Your task to perform on an android device: Clear the shopping cart on ebay. Search for "razer kraken" on ebay, select the first entry, add it to the cart, then select checkout. Image 0: 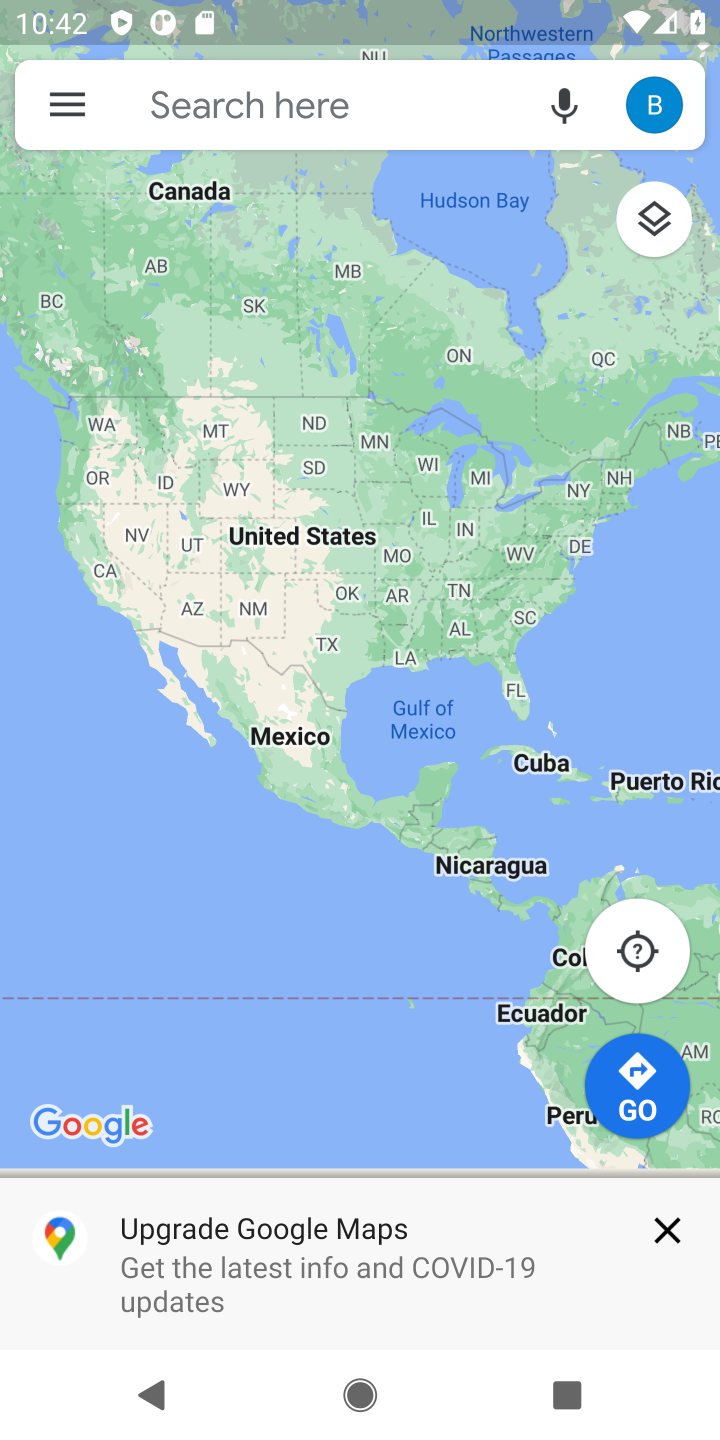
Step 0: press home button
Your task to perform on an android device: Clear the shopping cart on ebay. Search for "razer kraken" on ebay, select the first entry, add it to the cart, then select checkout. Image 1: 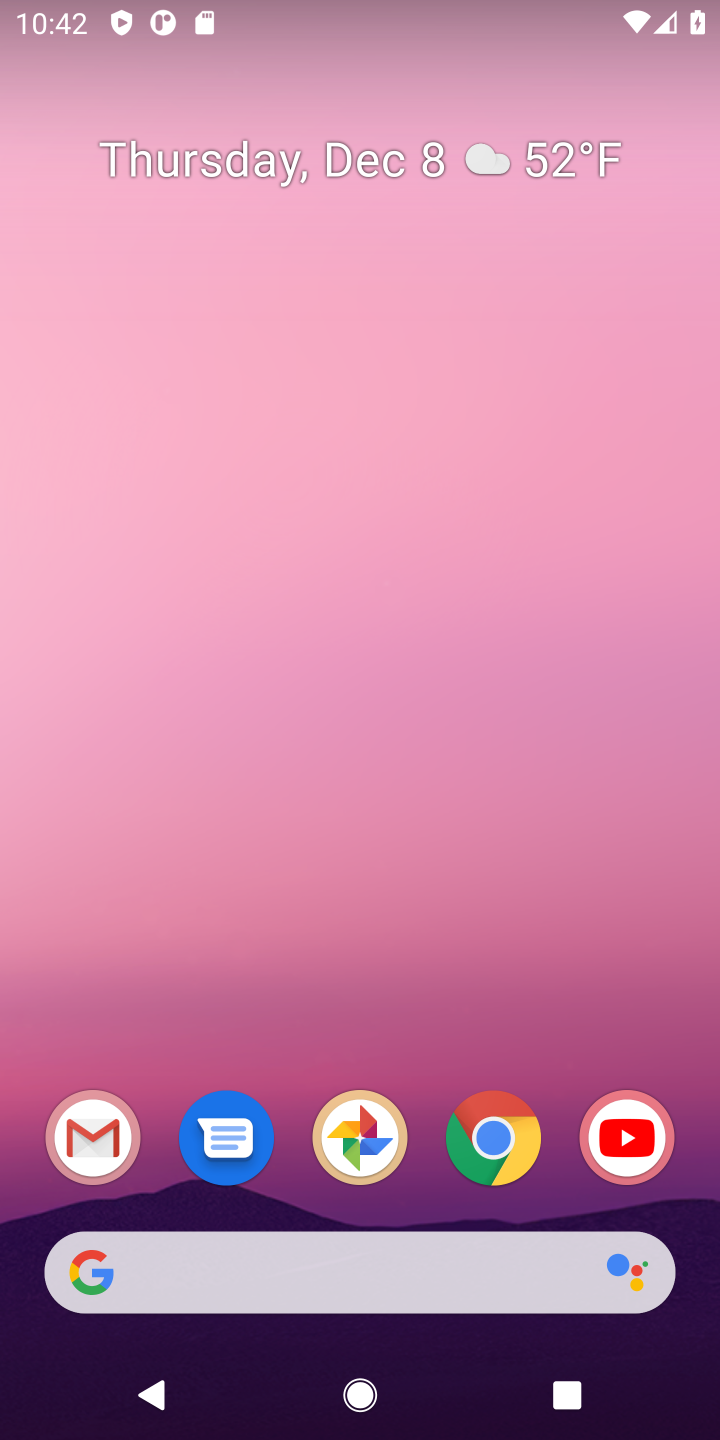
Step 1: click (517, 1138)
Your task to perform on an android device: Clear the shopping cart on ebay. Search for "razer kraken" on ebay, select the first entry, add it to the cart, then select checkout. Image 2: 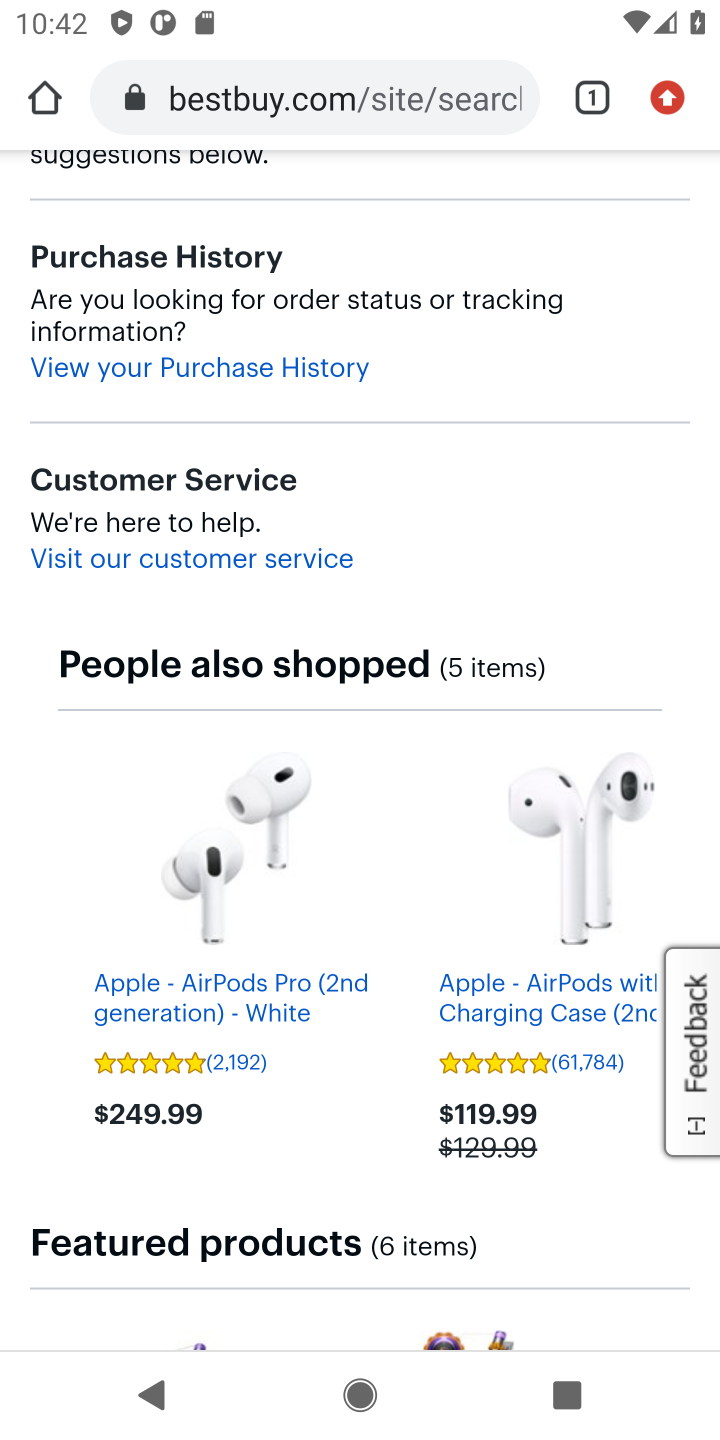
Step 2: click (297, 99)
Your task to perform on an android device: Clear the shopping cart on ebay. Search for "razer kraken" on ebay, select the first entry, add it to the cart, then select checkout. Image 3: 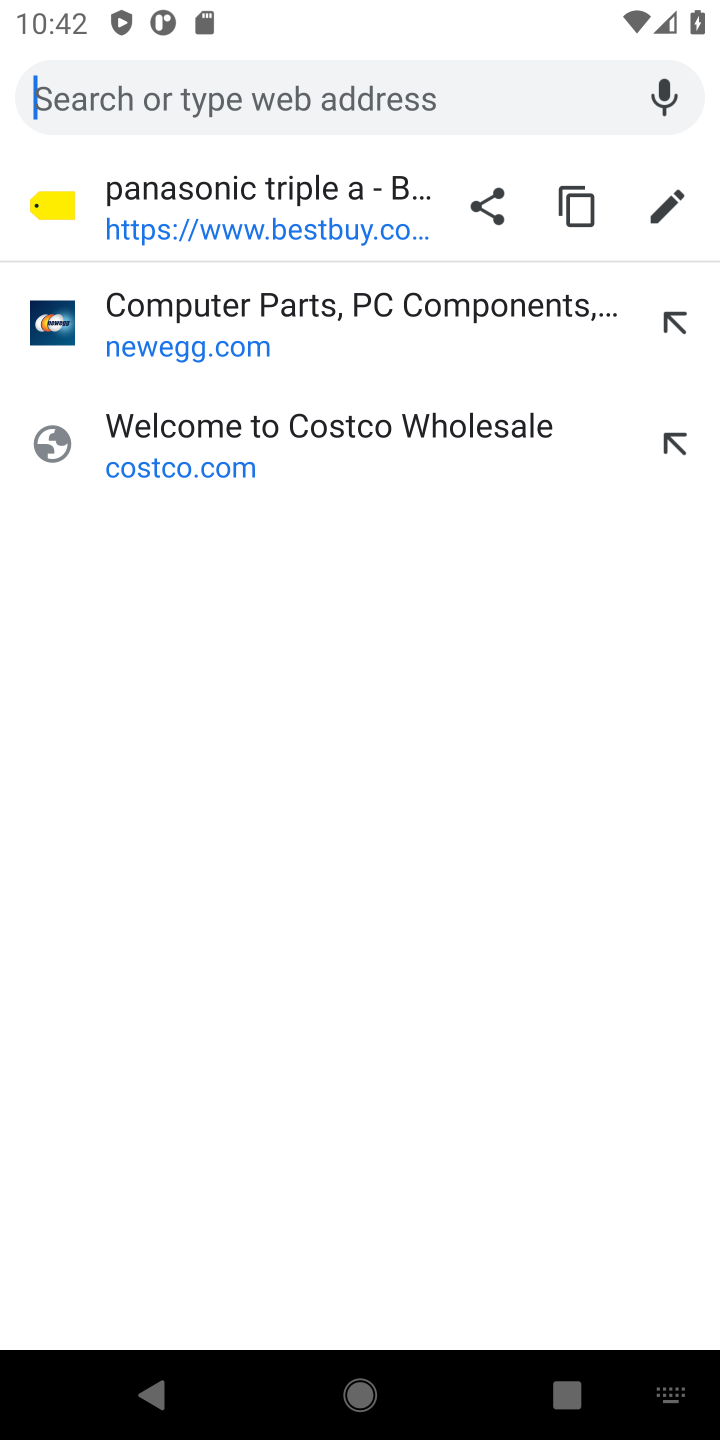
Step 3: type "ebay"
Your task to perform on an android device: Clear the shopping cart on ebay. Search for "razer kraken" on ebay, select the first entry, add it to the cart, then select checkout. Image 4: 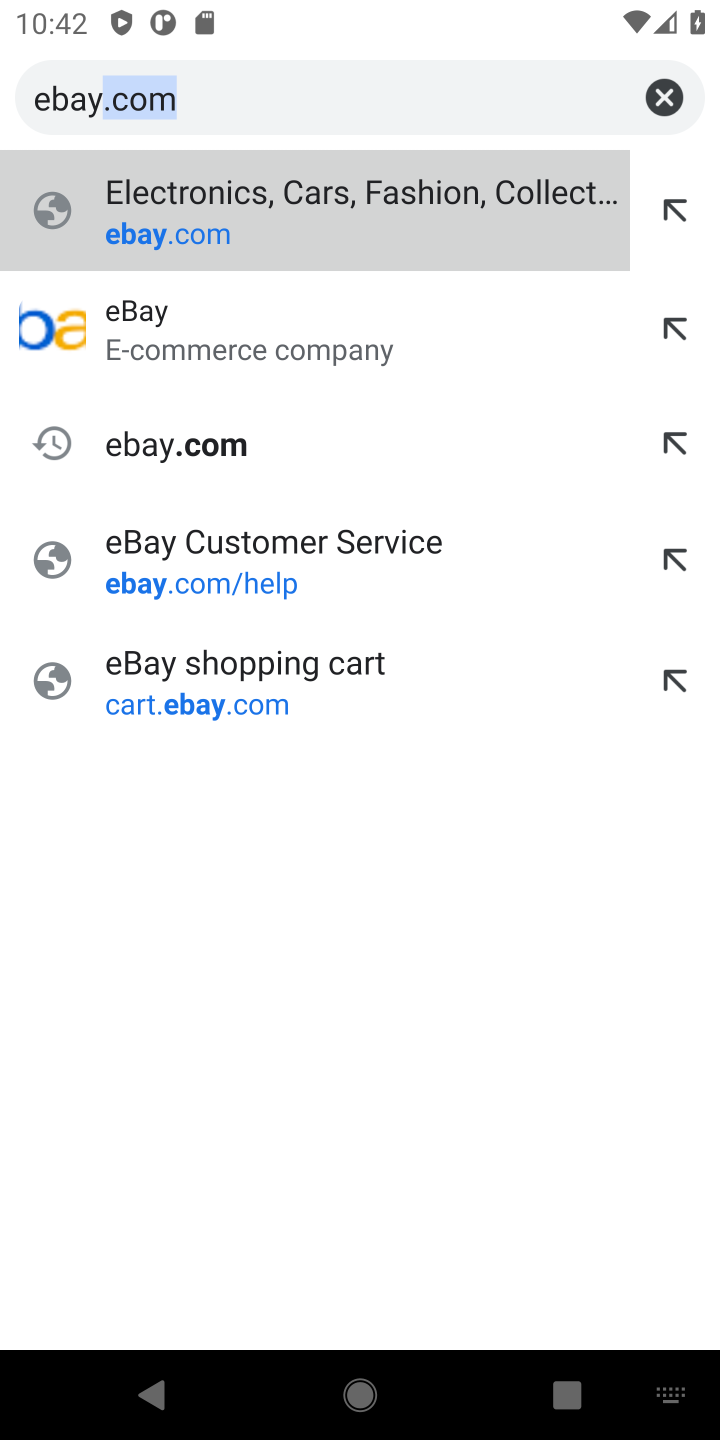
Step 4: press enter
Your task to perform on an android device: Clear the shopping cart on ebay. Search for "razer kraken" on ebay, select the first entry, add it to the cart, then select checkout. Image 5: 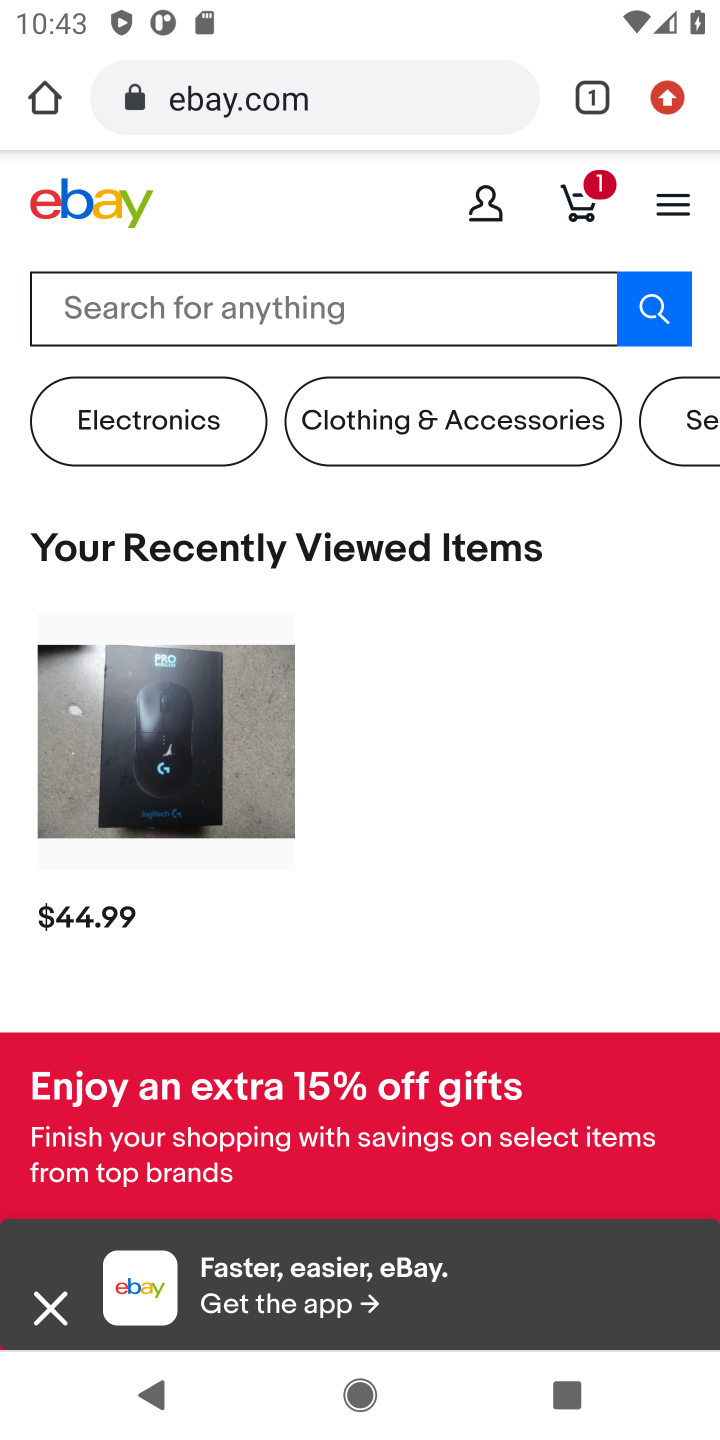
Step 5: click (573, 207)
Your task to perform on an android device: Clear the shopping cart on ebay. Search for "razer kraken" on ebay, select the first entry, add it to the cart, then select checkout. Image 6: 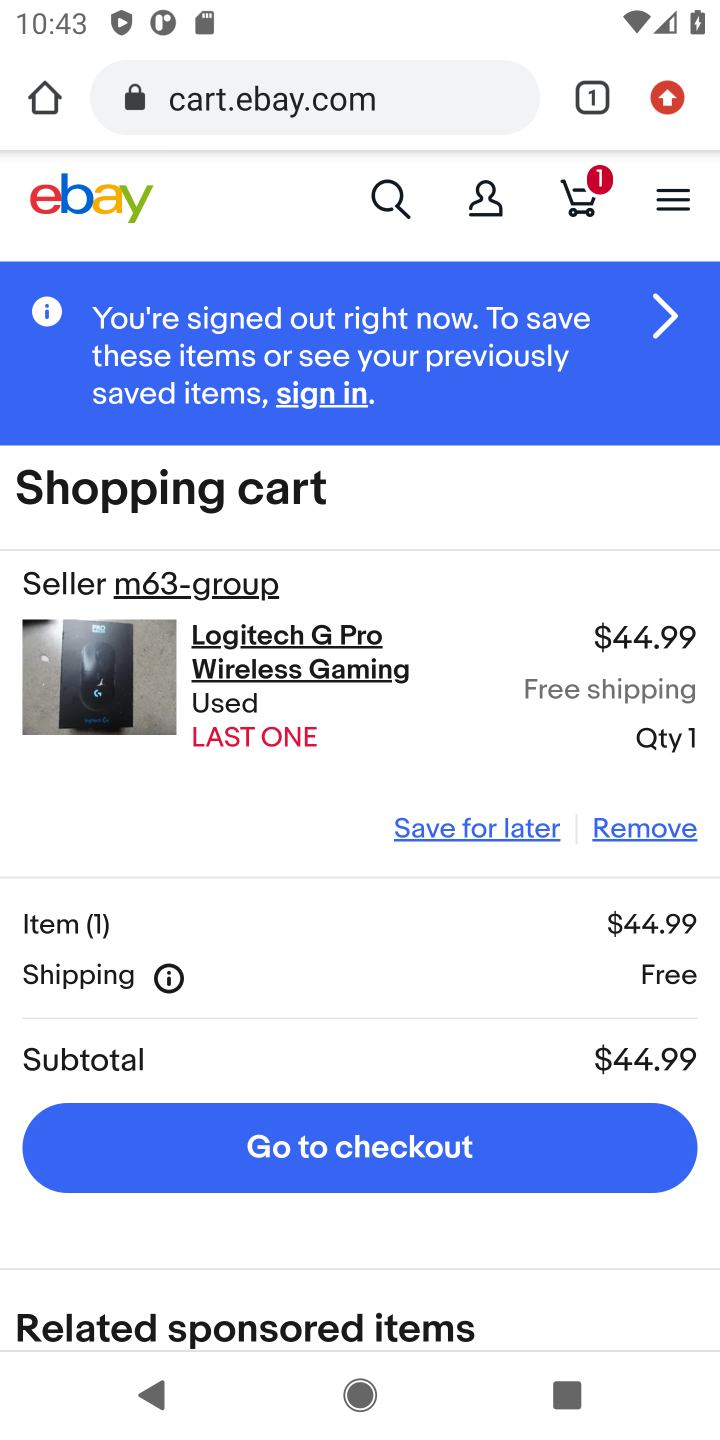
Step 6: click (640, 821)
Your task to perform on an android device: Clear the shopping cart on ebay. Search for "razer kraken" on ebay, select the first entry, add it to the cart, then select checkout. Image 7: 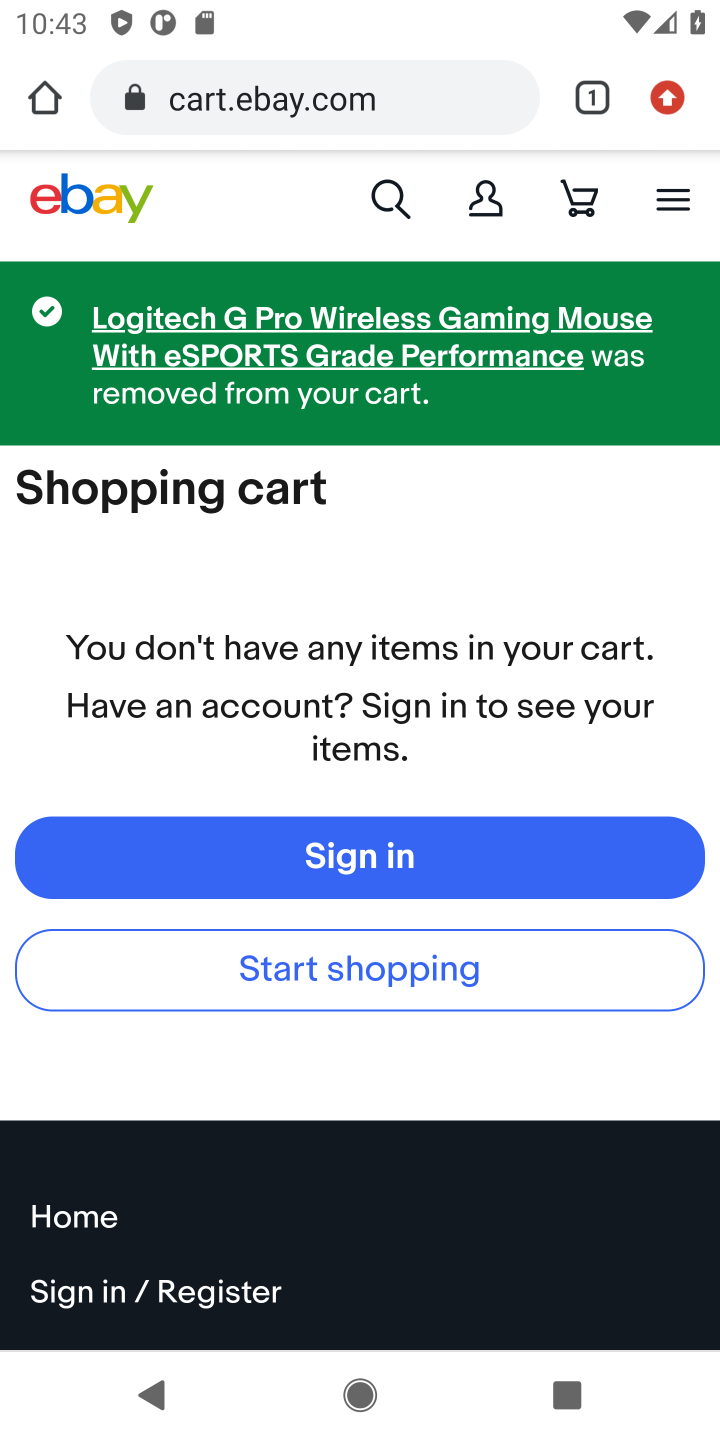
Step 7: click (381, 197)
Your task to perform on an android device: Clear the shopping cart on ebay. Search for "razer kraken" on ebay, select the first entry, add it to the cart, then select checkout. Image 8: 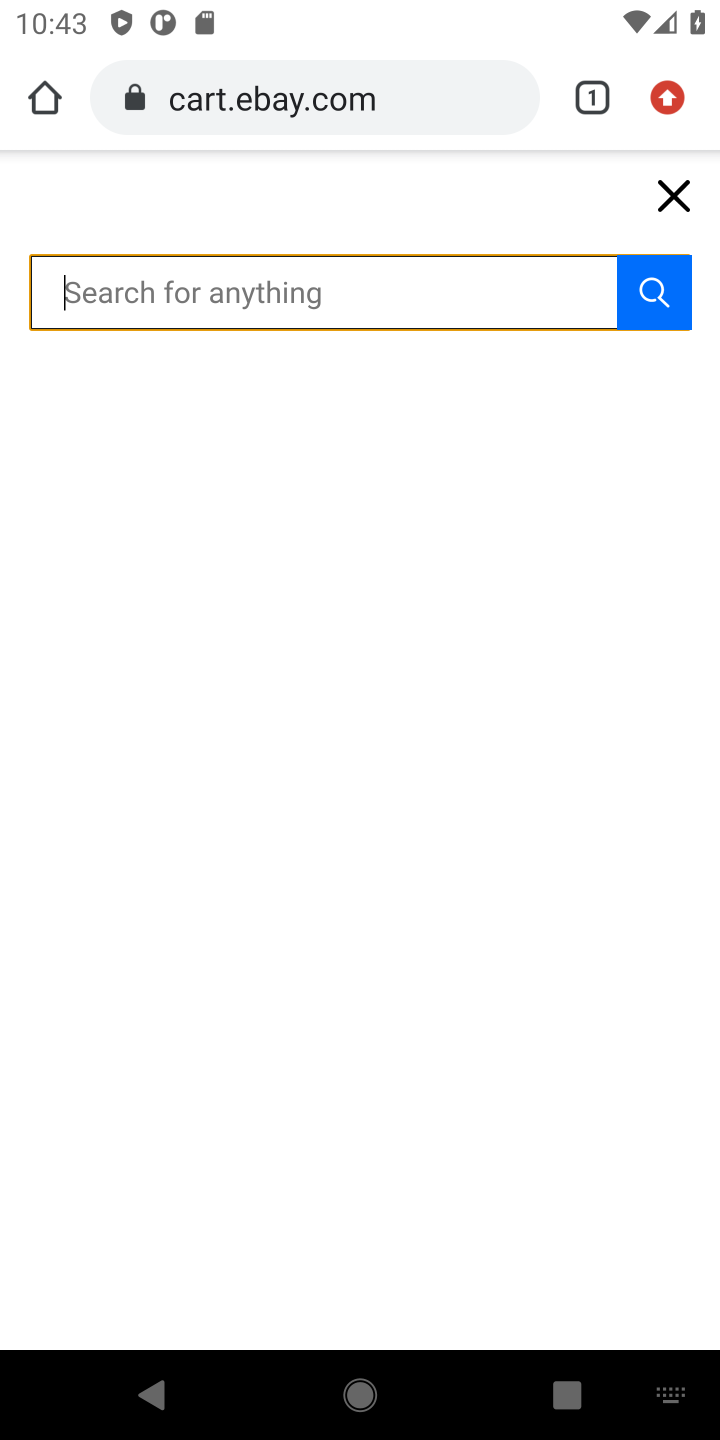
Step 8: type "razer kraken"
Your task to perform on an android device: Clear the shopping cart on ebay. Search for "razer kraken" on ebay, select the first entry, add it to the cart, then select checkout. Image 9: 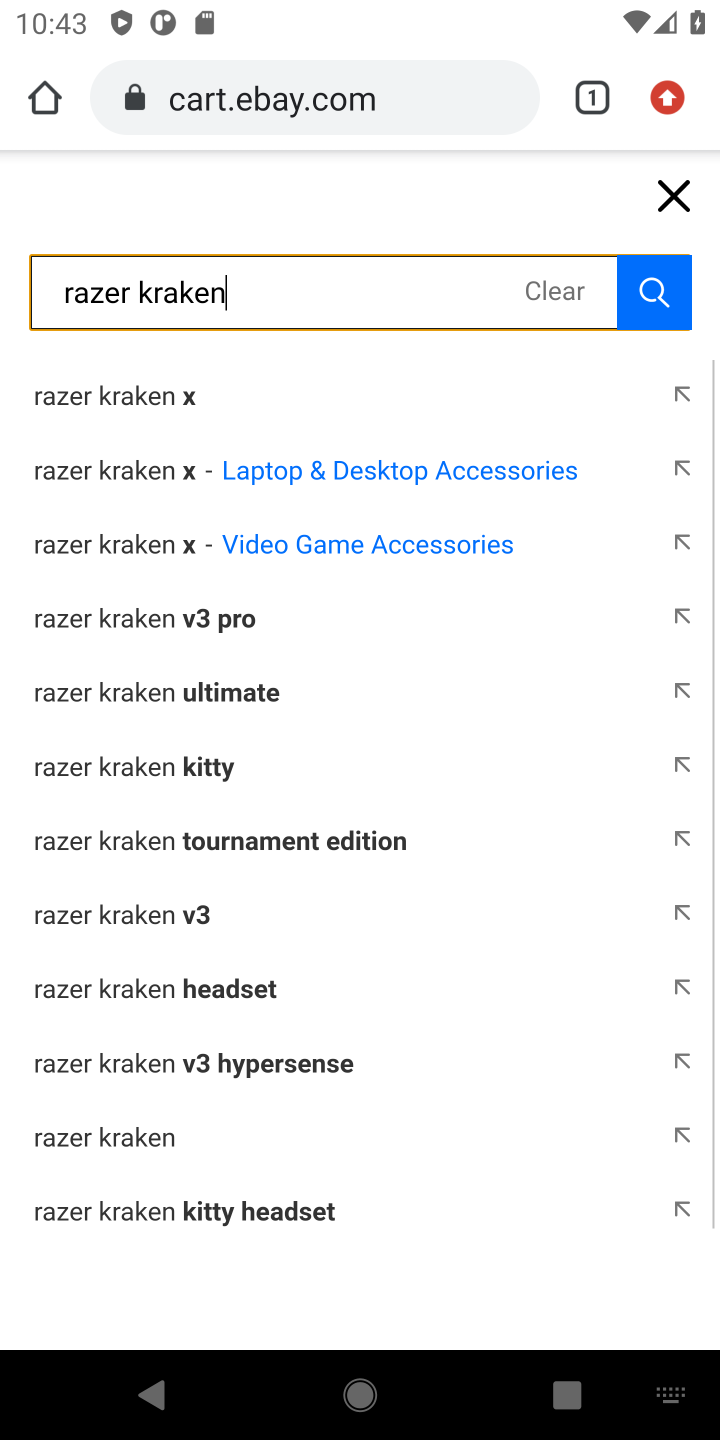
Step 9: press enter
Your task to perform on an android device: Clear the shopping cart on ebay. Search for "razer kraken" on ebay, select the first entry, add it to the cart, then select checkout. Image 10: 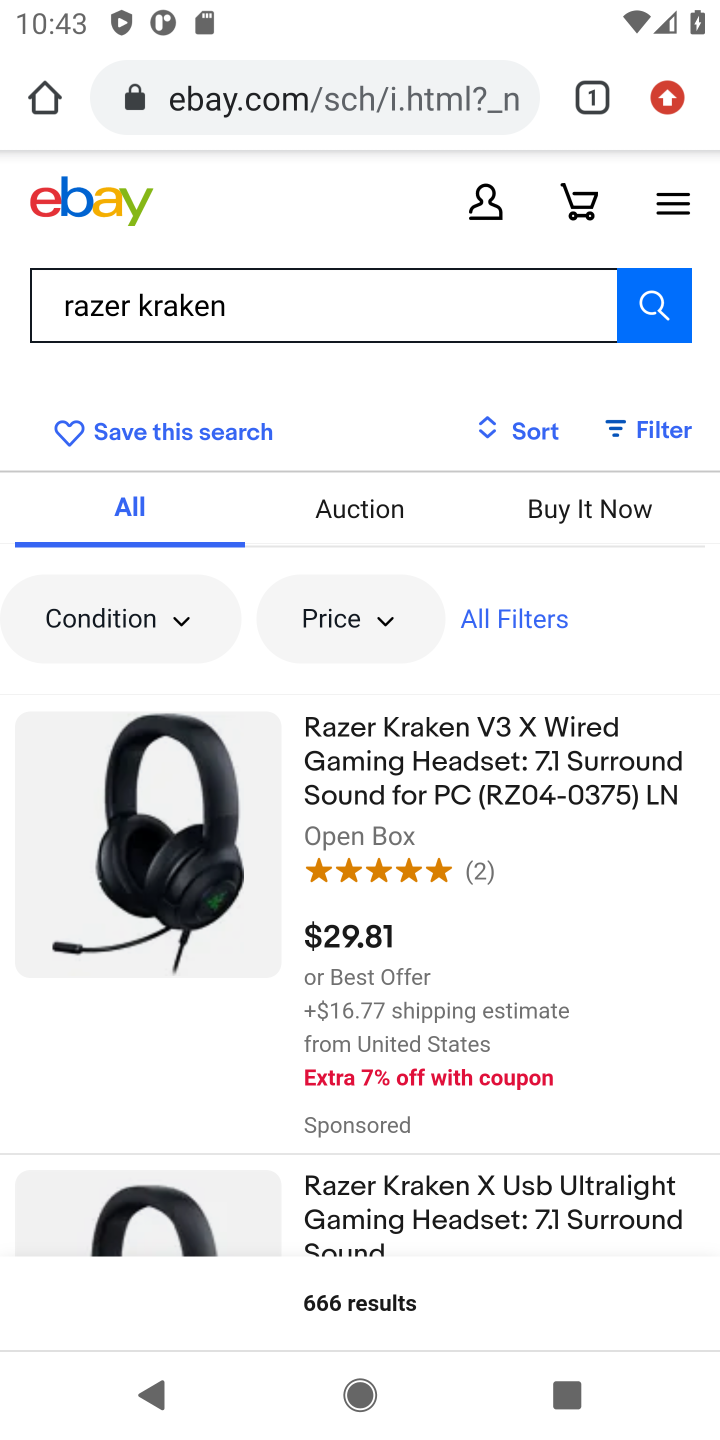
Step 10: click (156, 836)
Your task to perform on an android device: Clear the shopping cart on ebay. Search for "razer kraken" on ebay, select the first entry, add it to the cart, then select checkout. Image 11: 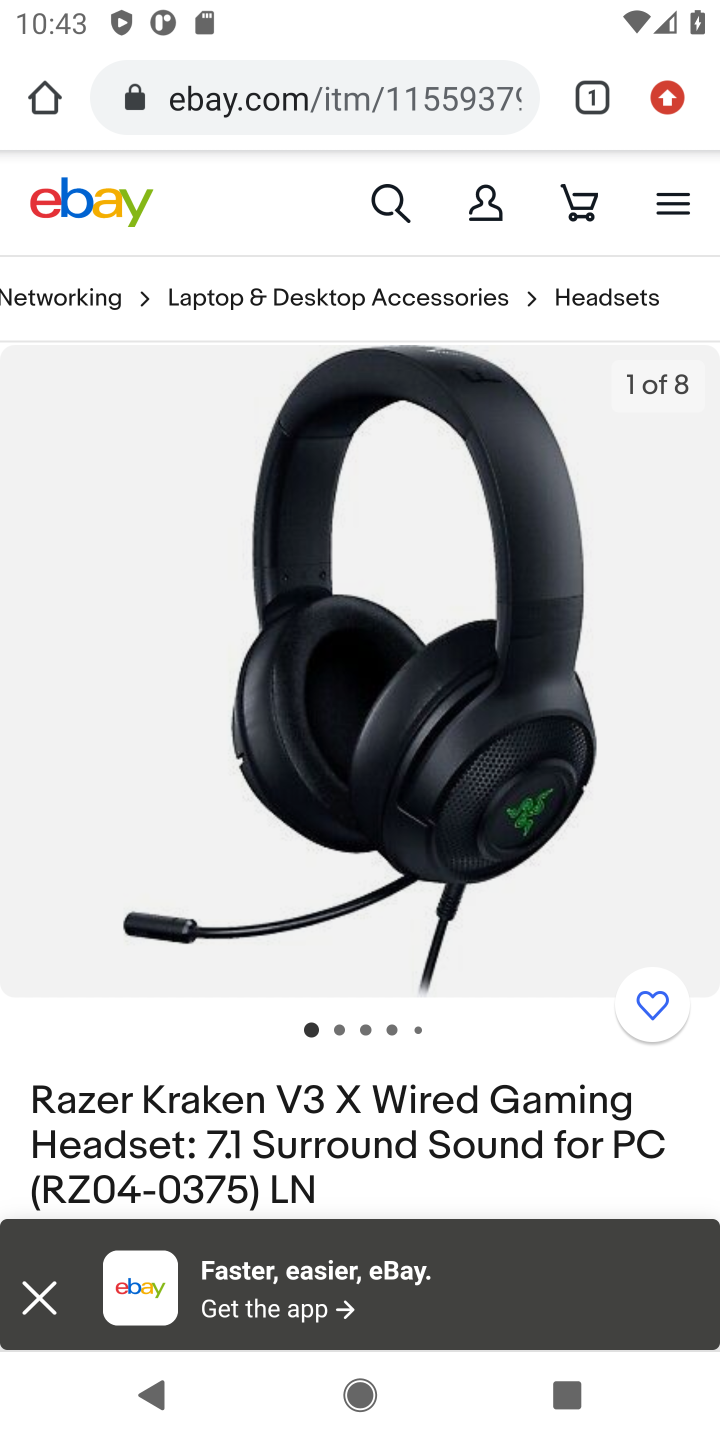
Step 11: drag from (553, 1187) to (526, 184)
Your task to perform on an android device: Clear the shopping cart on ebay. Search for "razer kraken" on ebay, select the first entry, add it to the cart, then select checkout. Image 12: 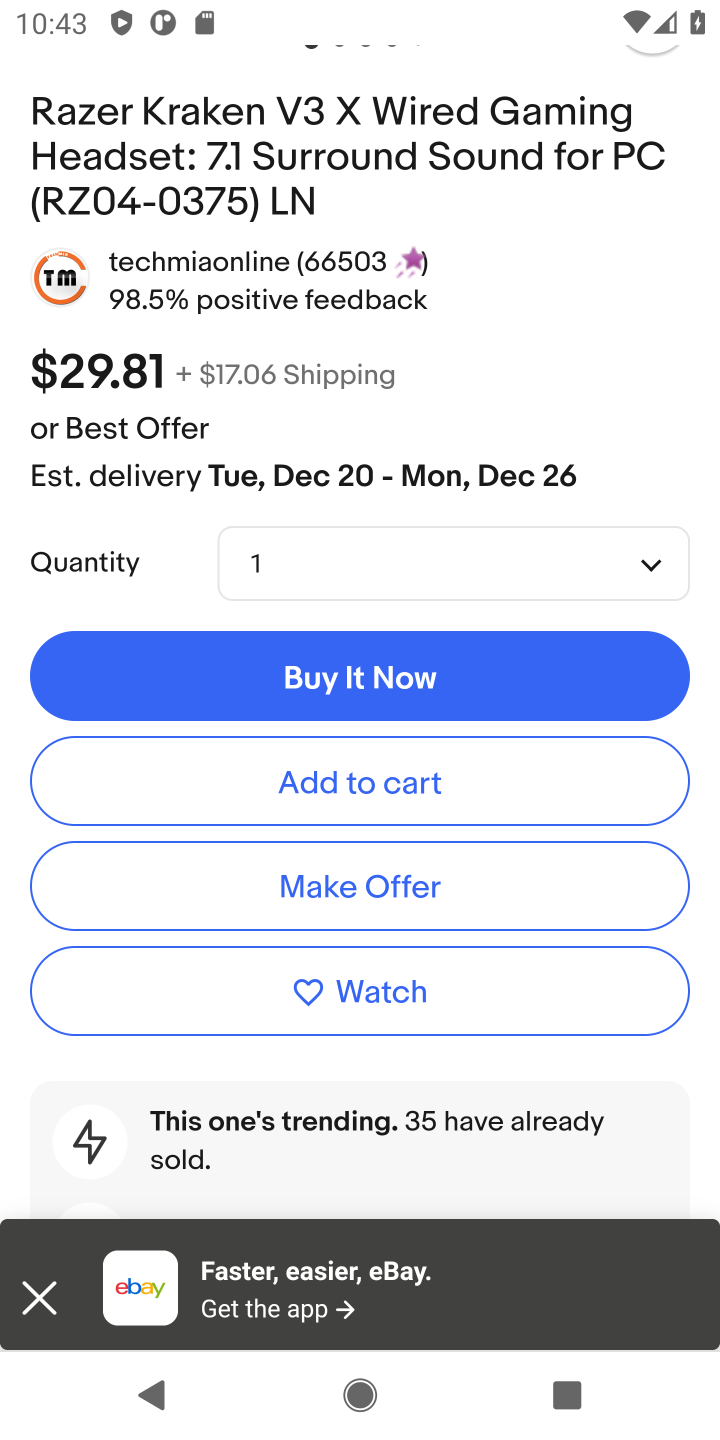
Step 12: click (345, 777)
Your task to perform on an android device: Clear the shopping cart on ebay. Search for "razer kraken" on ebay, select the first entry, add it to the cart, then select checkout. Image 13: 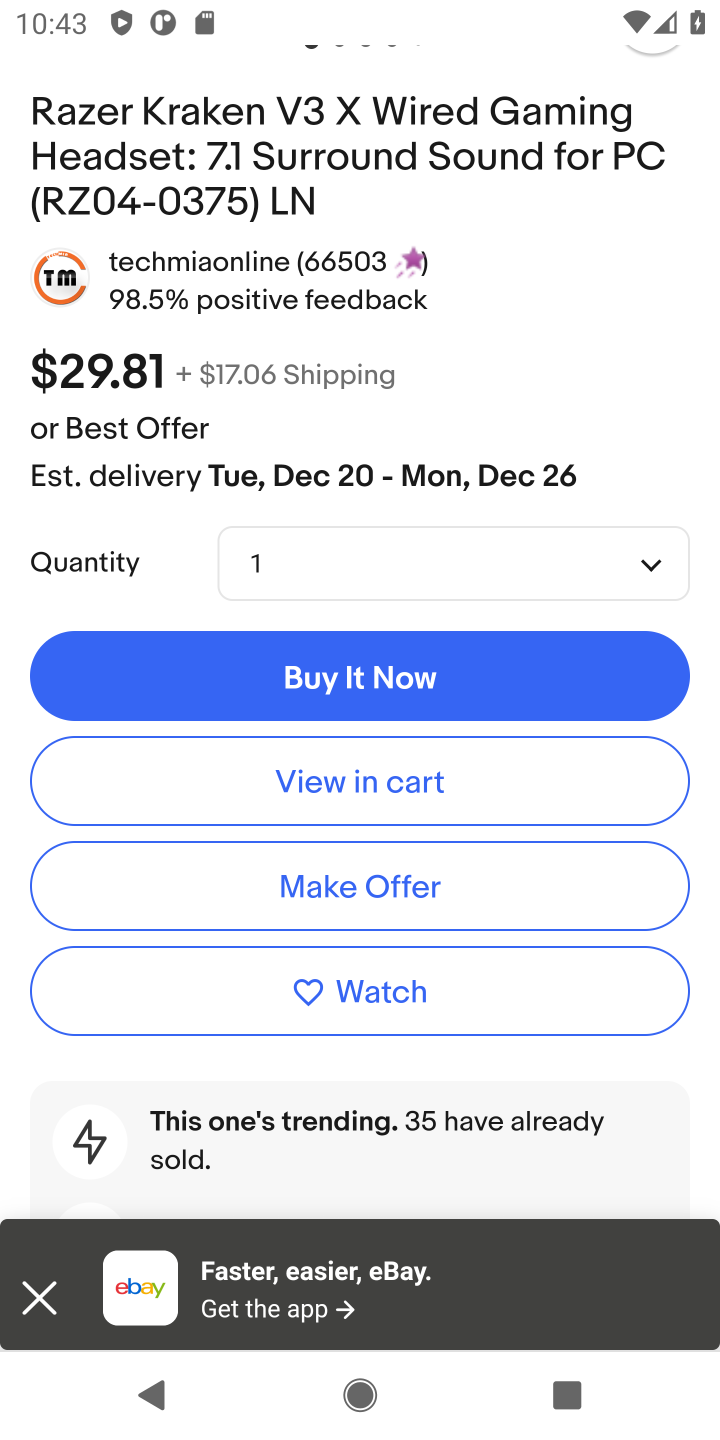
Step 13: click (400, 782)
Your task to perform on an android device: Clear the shopping cart on ebay. Search for "razer kraken" on ebay, select the first entry, add it to the cart, then select checkout. Image 14: 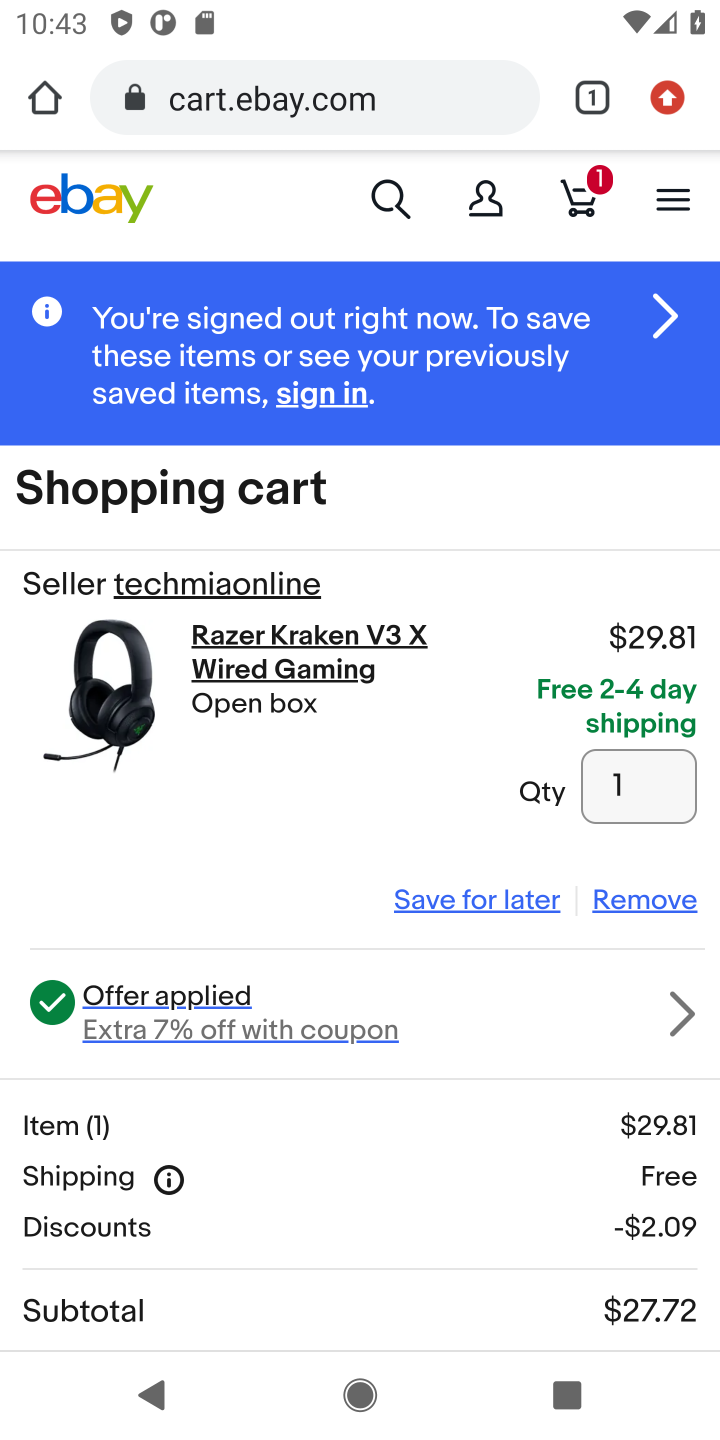
Step 14: drag from (424, 741) to (524, 78)
Your task to perform on an android device: Clear the shopping cart on ebay. Search for "razer kraken" on ebay, select the first entry, add it to the cart, then select checkout. Image 15: 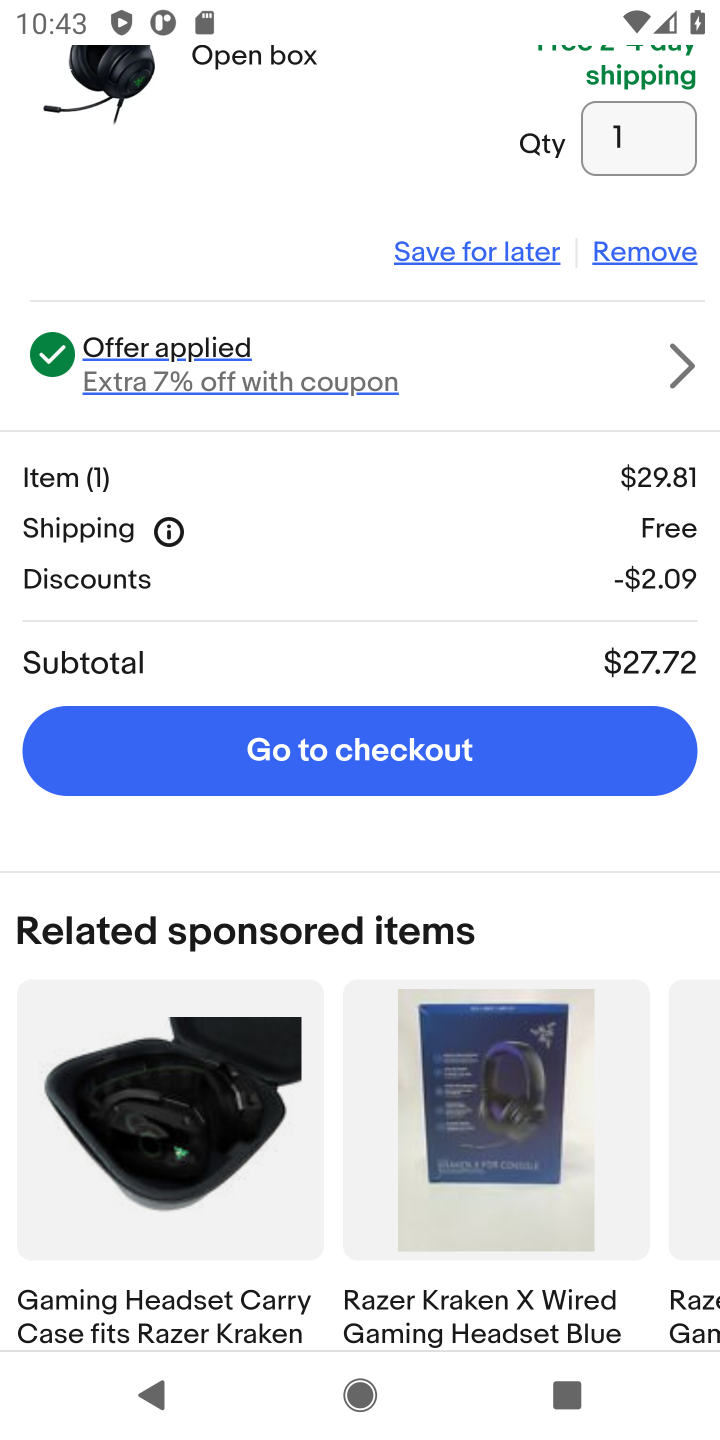
Step 15: click (340, 752)
Your task to perform on an android device: Clear the shopping cart on ebay. Search for "razer kraken" on ebay, select the first entry, add it to the cart, then select checkout. Image 16: 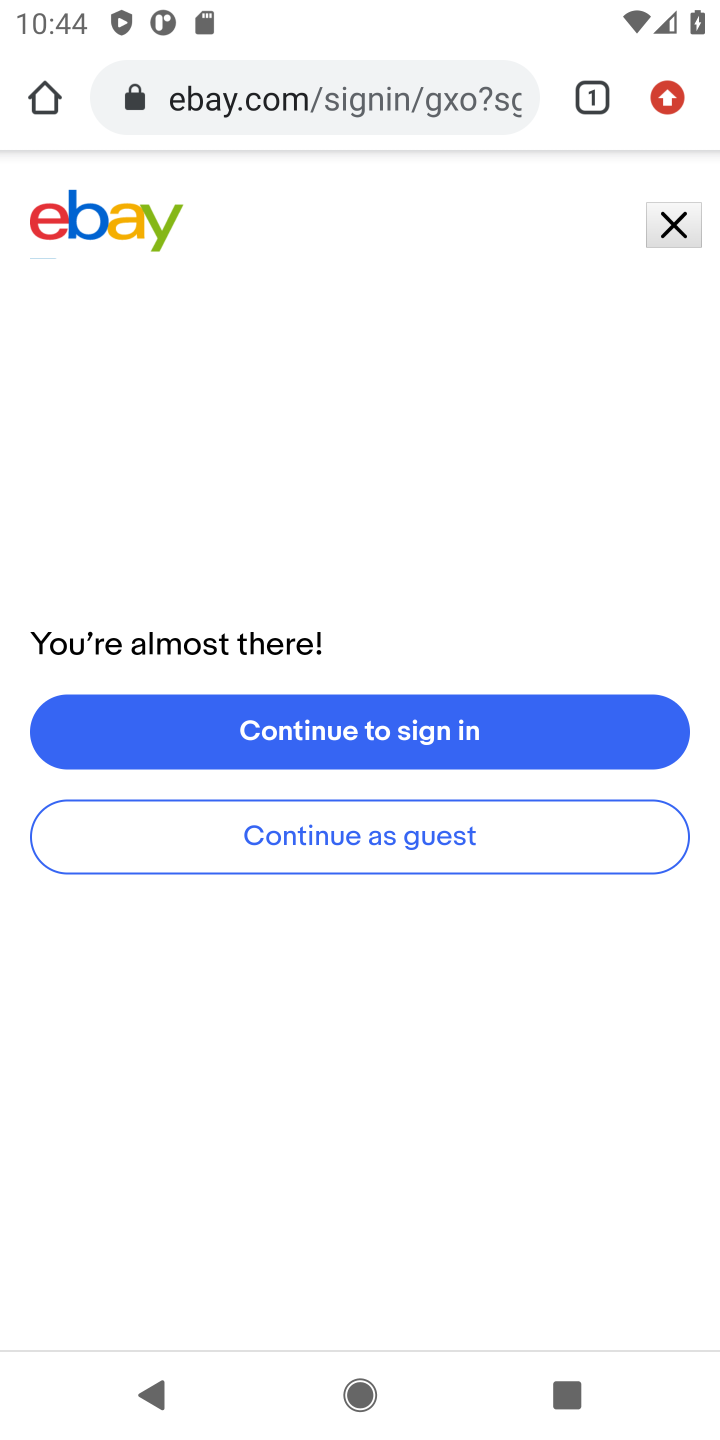
Step 16: task complete